Your task to perform on an android device: change timer sound Image 0: 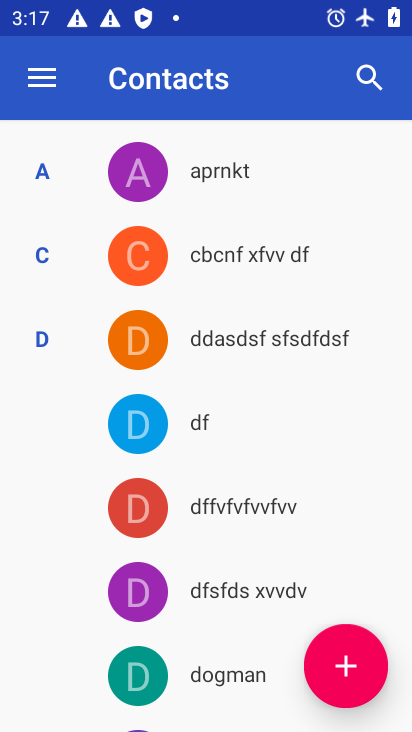
Step 0: press home button
Your task to perform on an android device: change timer sound Image 1: 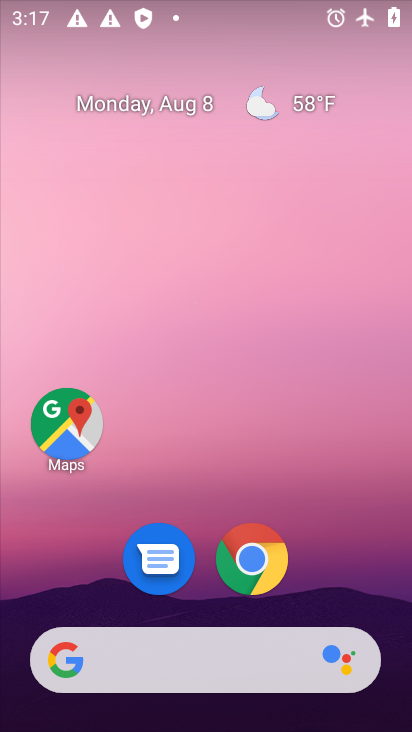
Step 1: drag from (204, 655) to (242, 161)
Your task to perform on an android device: change timer sound Image 2: 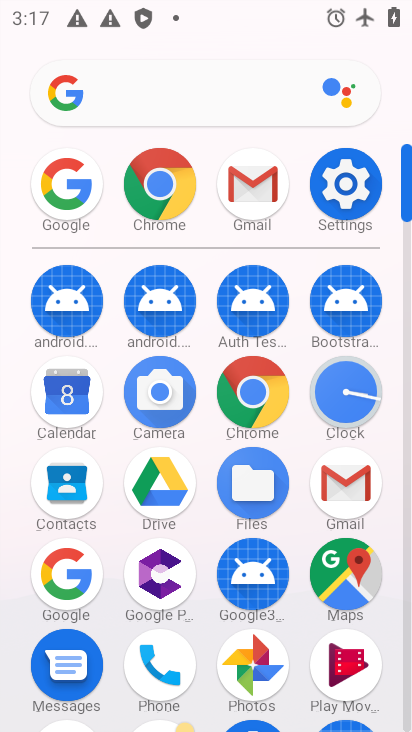
Step 2: click (347, 392)
Your task to perform on an android device: change timer sound Image 3: 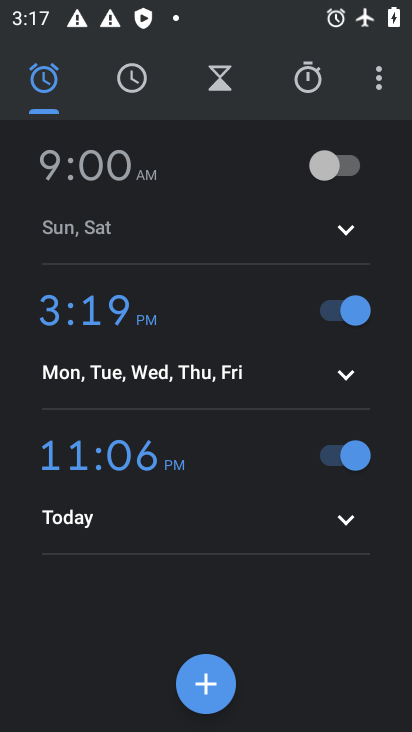
Step 3: click (381, 84)
Your task to perform on an android device: change timer sound Image 4: 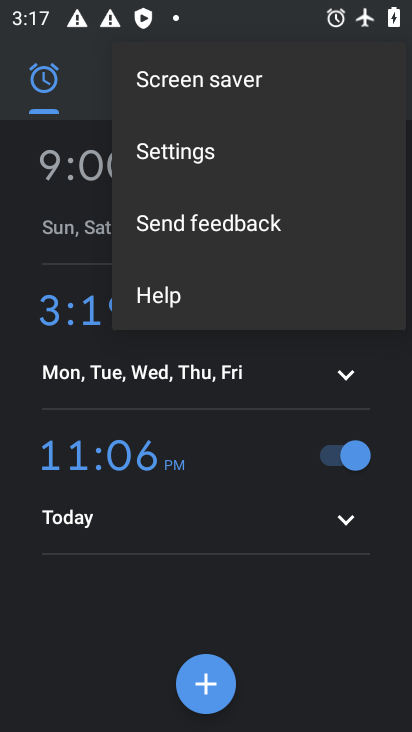
Step 4: click (197, 158)
Your task to perform on an android device: change timer sound Image 5: 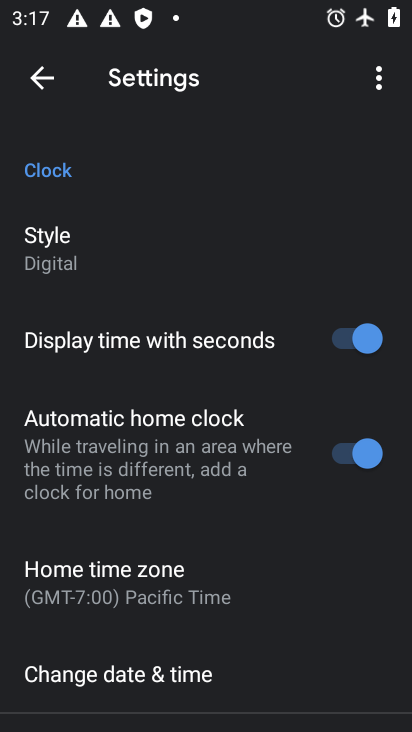
Step 5: drag from (142, 528) to (313, 255)
Your task to perform on an android device: change timer sound Image 6: 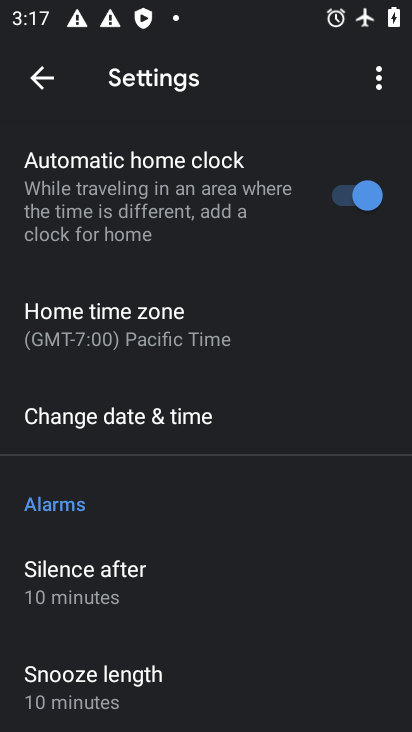
Step 6: drag from (197, 572) to (304, 282)
Your task to perform on an android device: change timer sound Image 7: 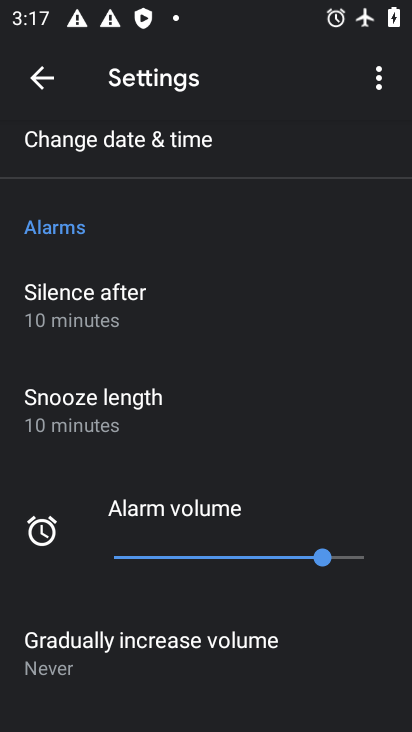
Step 7: drag from (131, 673) to (295, 368)
Your task to perform on an android device: change timer sound Image 8: 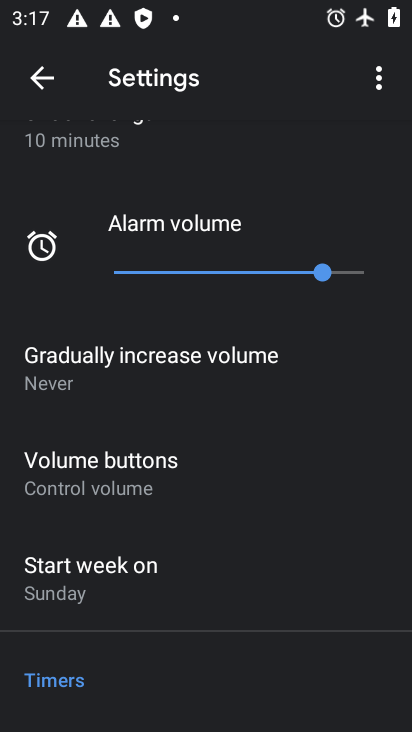
Step 8: drag from (165, 652) to (315, 423)
Your task to perform on an android device: change timer sound Image 9: 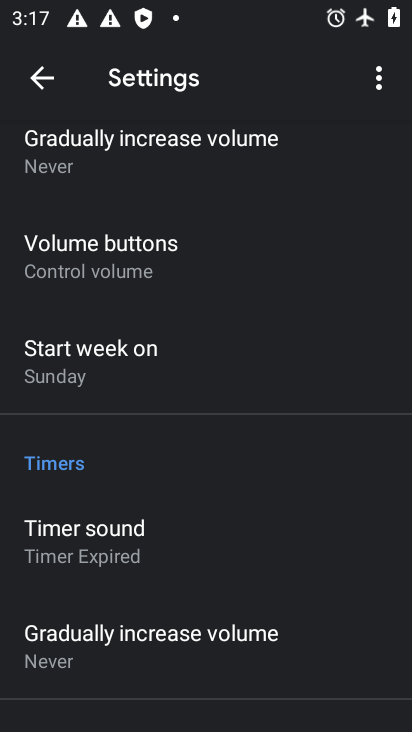
Step 9: click (109, 536)
Your task to perform on an android device: change timer sound Image 10: 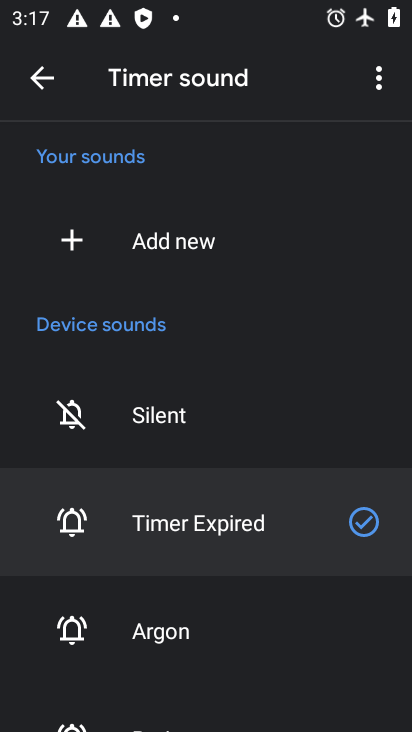
Step 10: drag from (152, 627) to (304, 382)
Your task to perform on an android device: change timer sound Image 11: 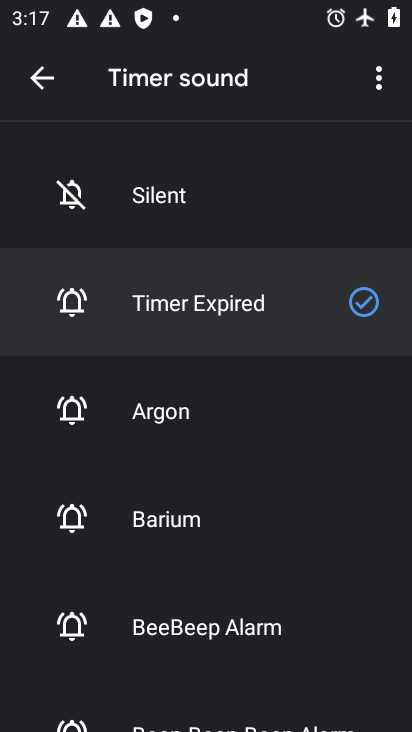
Step 11: drag from (211, 590) to (307, 432)
Your task to perform on an android device: change timer sound Image 12: 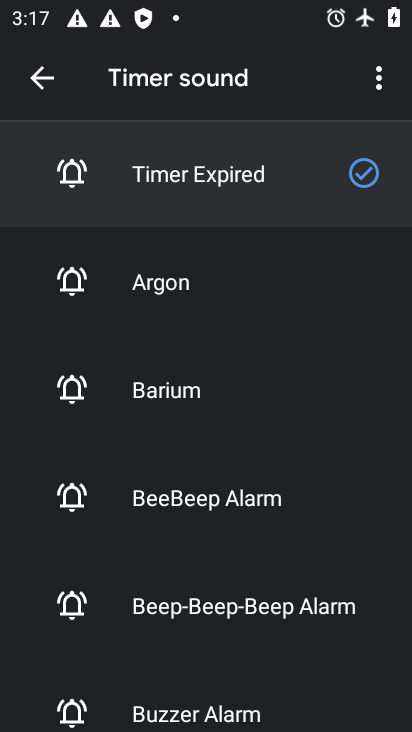
Step 12: drag from (218, 580) to (293, 424)
Your task to perform on an android device: change timer sound Image 13: 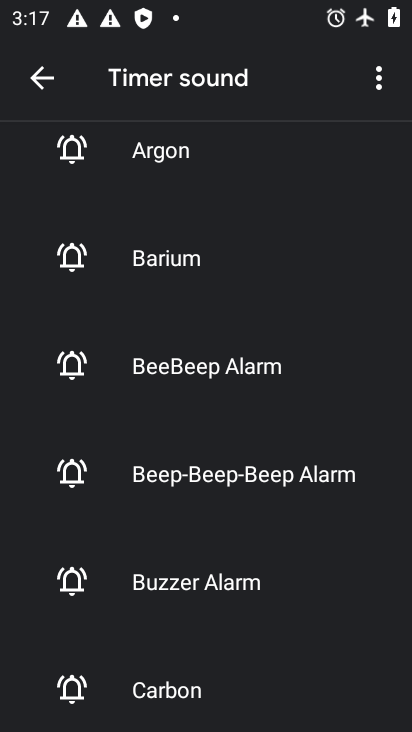
Step 13: drag from (221, 547) to (327, 353)
Your task to perform on an android device: change timer sound Image 14: 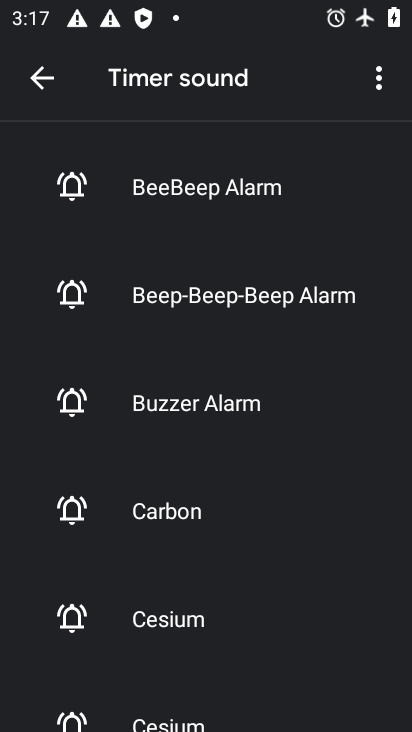
Step 14: drag from (190, 608) to (294, 382)
Your task to perform on an android device: change timer sound Image 15: 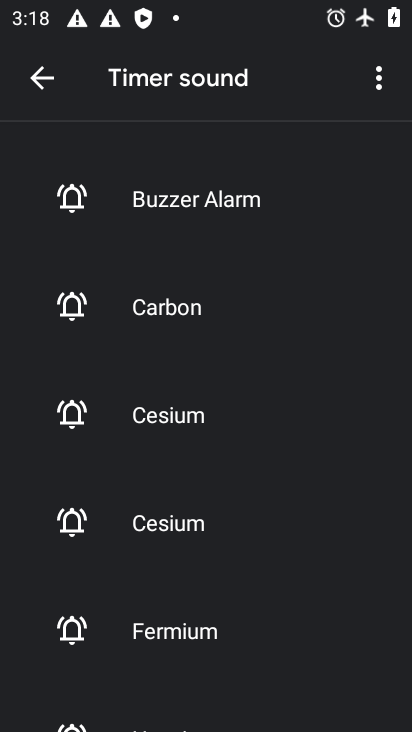
Step 15: click (134, 413)
Your task to perform on an android device: change timer sound Image 16: 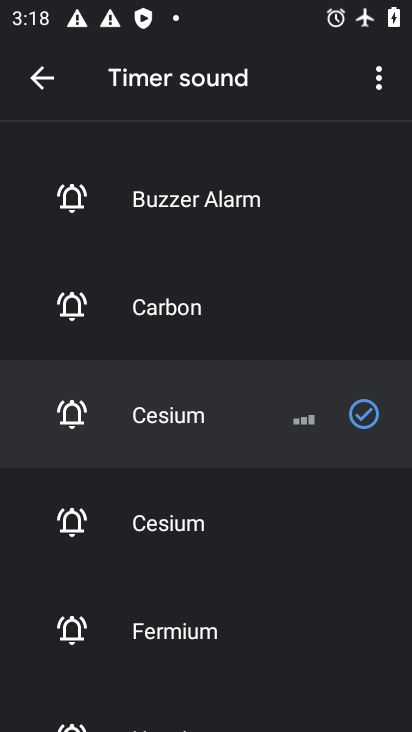
Step 16: task complete